Your task to perform on an android device: toggle javascript in the chrome app Image 0: 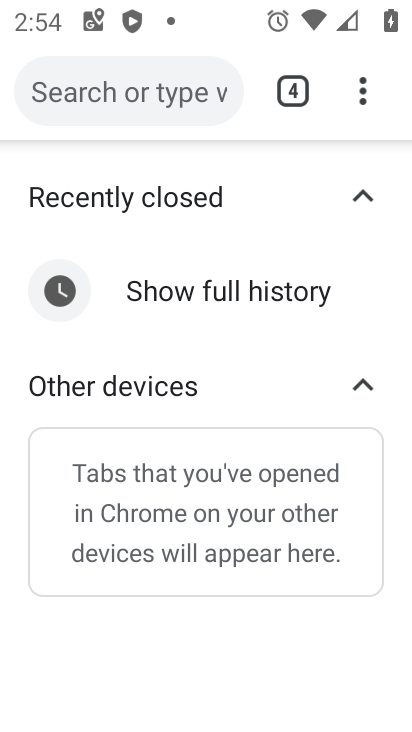
Step 0: press home button
Your task to perform on an android device: toggle javascript in the chrome app Image 1: 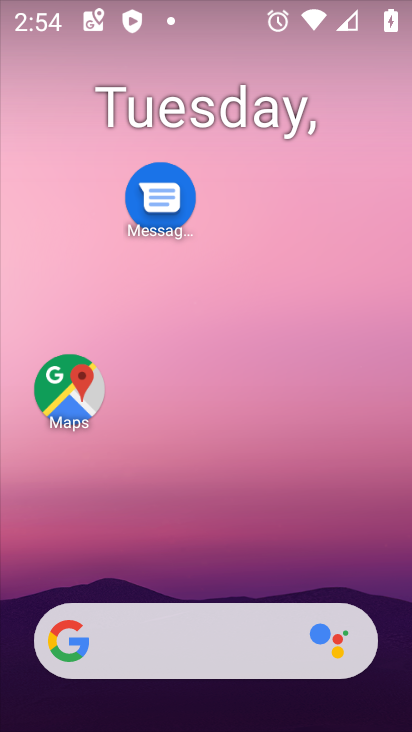
Step 1: drag from (205, 580) to (254, 173)
Your task to perform on an android device: toggle javascript in the chrome app Image 2: 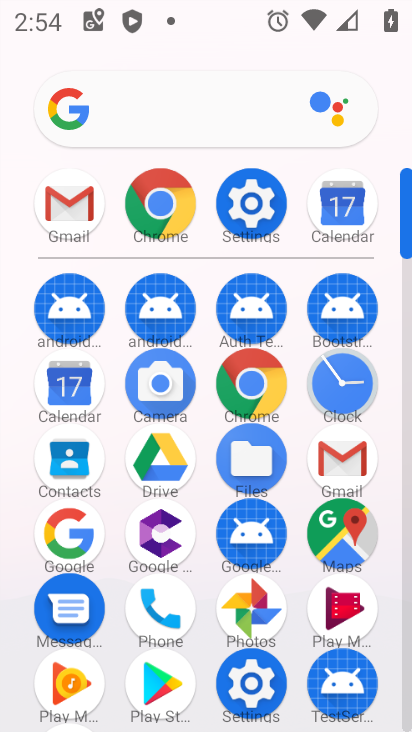
Step 2: click (138, 206)
Your task to perform on an android device: toggle javascript in the chrome app Image 3: 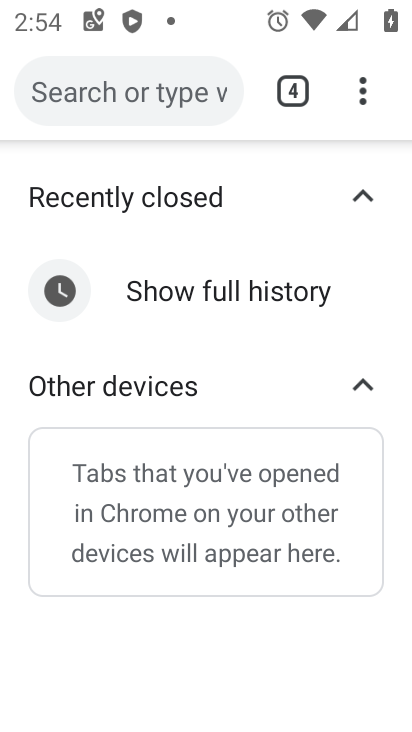
Step 3: drag from (366, 94) to (154, 547)
Your task to perform on an android device: toggle javascript in the chrome app Image 4: 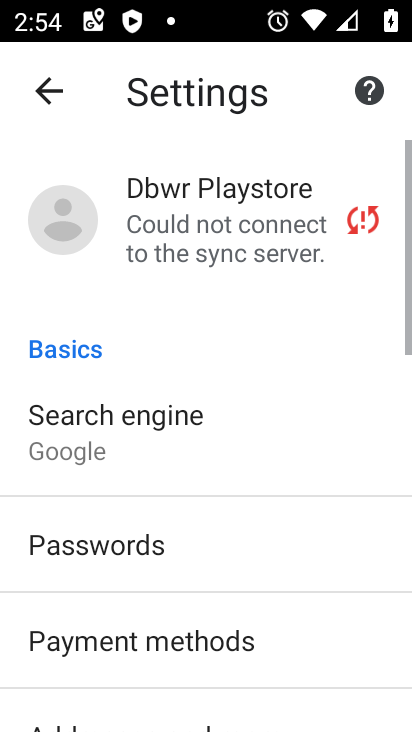
Step 4: drag from (202, 614) to (276, 317)
Your task to perform on an android device: toggle javascript in the chrome app Image 5: 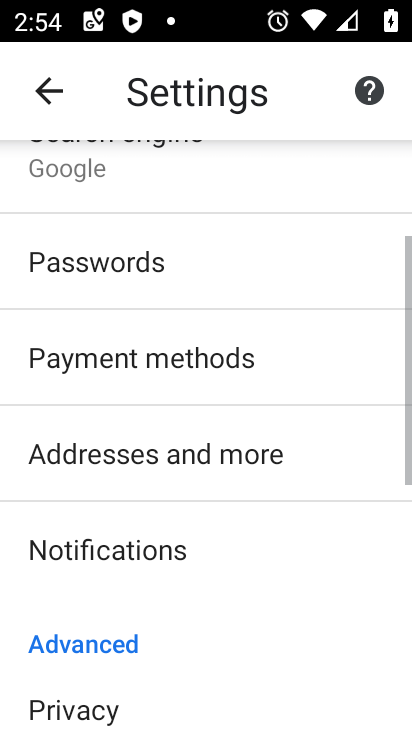
Step 5: drag from (264, 540) to (305, 360)
Your task to perform on an android device: toggle javascript in the chrome app Image 6: 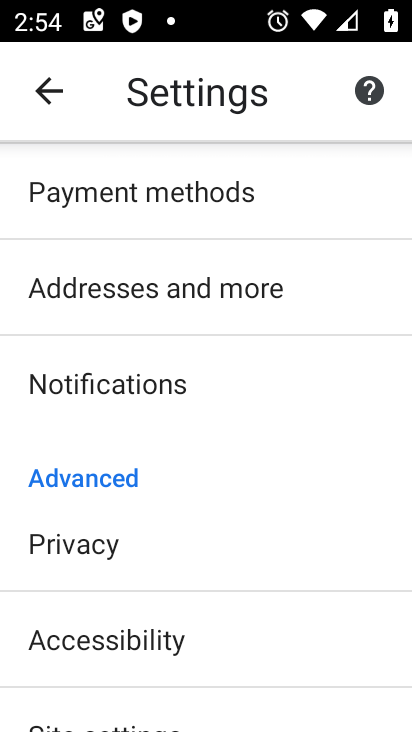
Step 6: drag from (186, 605) to (242, 340)
Your task to perform on an android device: toggle javascript in the chrome app Image 7: 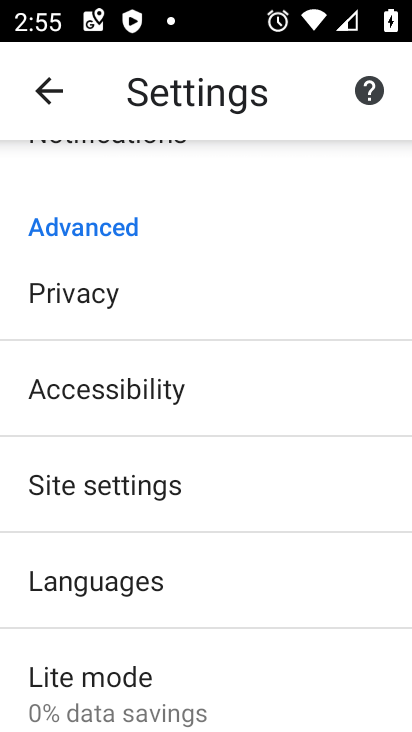
Step 7: click (178, 491)
Your task to perform on an android device: toggle javascript in the chrome app Image 8: 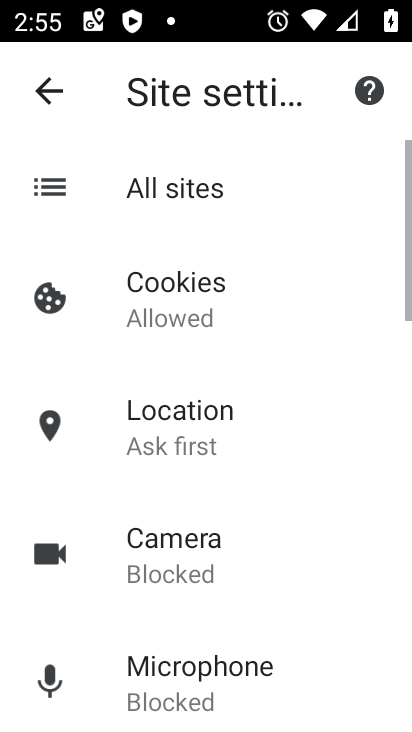
Step 8: drag from (202, 585) to (265, 321)
Your task to perform on an android device: toggle javascript in the chrome app Image 9: 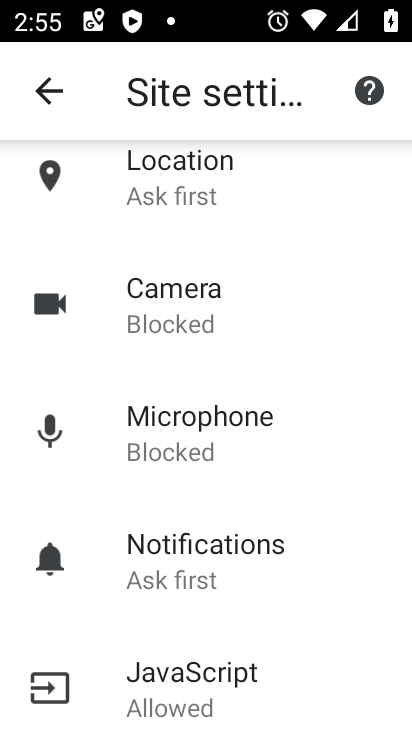
Step 9: click (224, 661)
Your task to perform on an android device: toggle javascript in the chrome app Image 10: 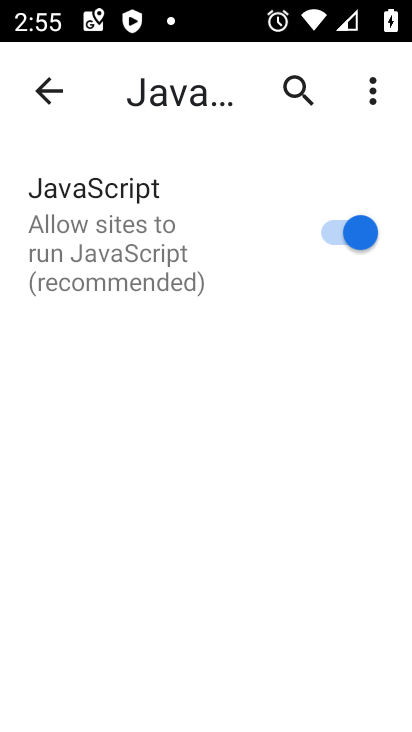
Step 10: click (321, 234)
Your task to perform on an android device: toggle javascript in the chrome app Image 11: 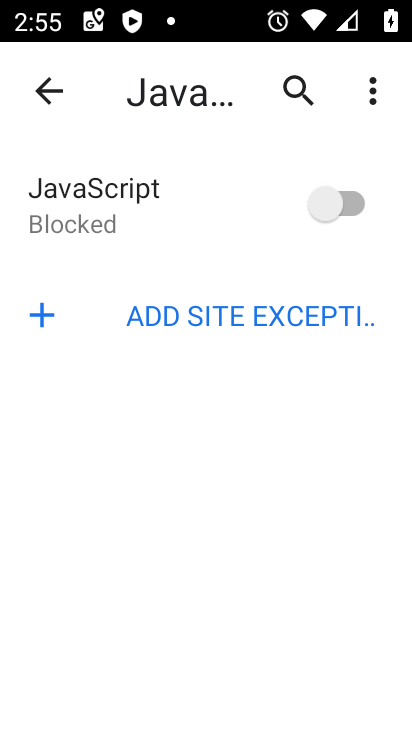
Step 11: task complete